Your task to perform on an android device: move an email to a new category in the gmail app Image 0: 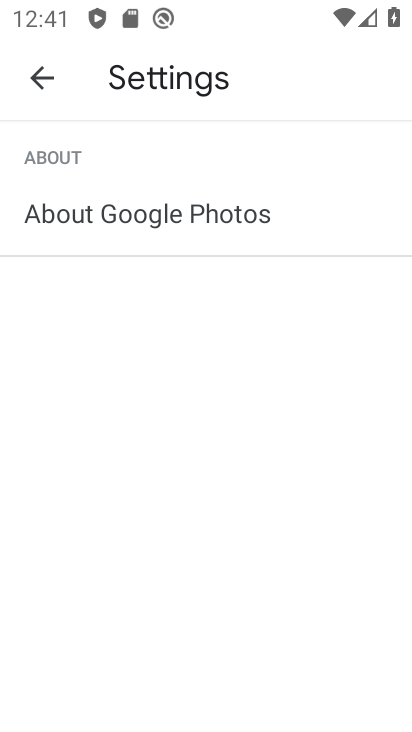
Step 0: press home button
Your task to perform on an android device: move an email to a new category in the gmail app Image 1: 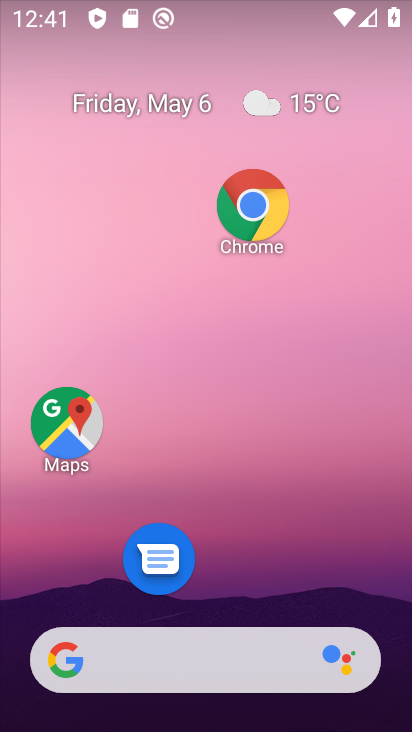
Step 1: drag from (237, 610) to (408, 443)
Your task to perform on an android device: move an email to a new category in the gmail app Image 2: 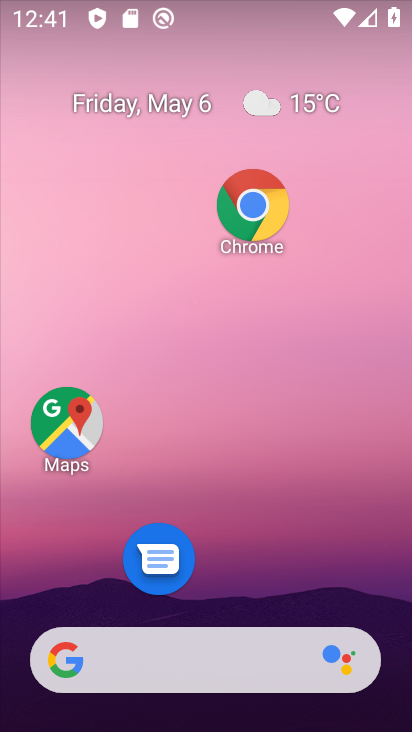
Step 2: click (361, 518)
Your task to perform on an android device: move an email to a new category in the gmail app Image 3: 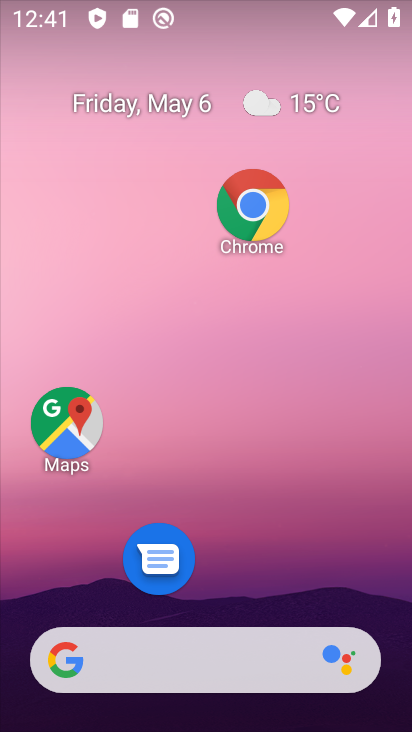
Step 3: drag from (232, 611) to (189, 183)
Your task to perform on an android device: move an email to a new category in the gmail app Image 4: 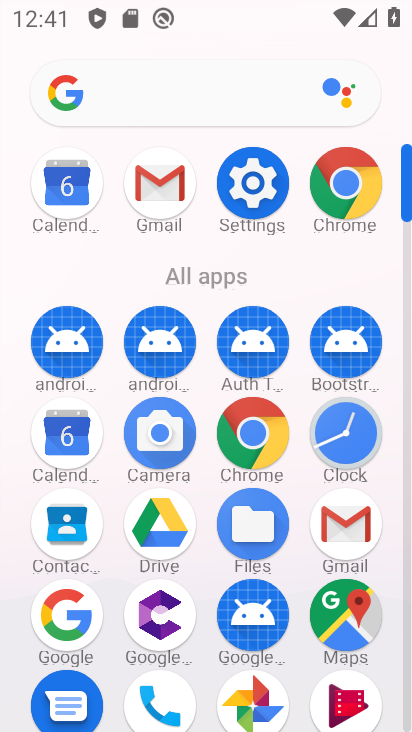
Step 4: click (373, 527)
Your task to perform on an android device: move an email to a new category in the gmail app Image 5: 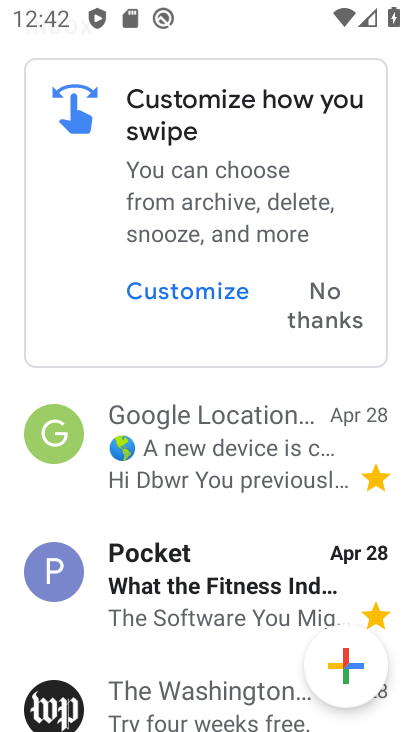
Step 5: click (249, 456)
Your task to perform on an android device: move an email to a new category in the gmail app Image 6: 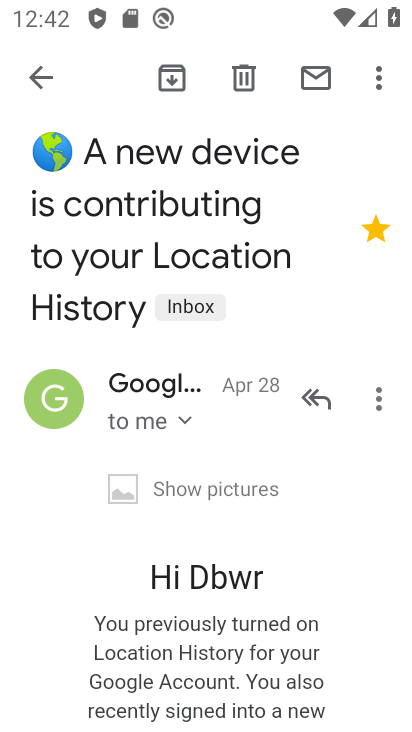
Step 6: click (363, 78)
Your task to perform on an android device: move an email to a new category in the gmail app Image 7: 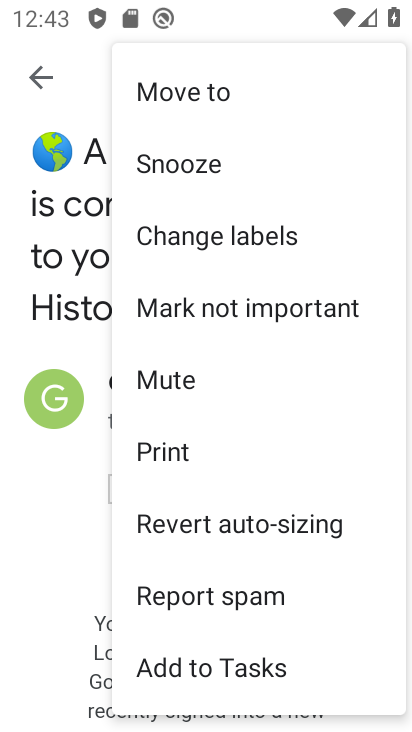
Step 7: click (240, 67)
Your task to perform on an android device: move an email to a new category in the gmail app Image 8: 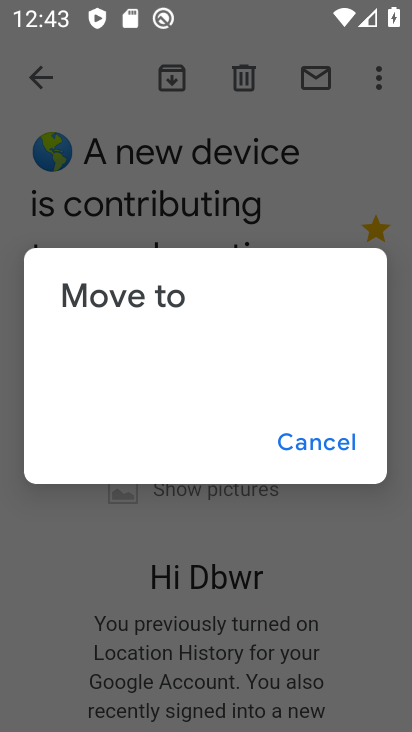
Step 8: press home button
Your task to perform on an android device: move an email to a new category in the gmail app Image 9: 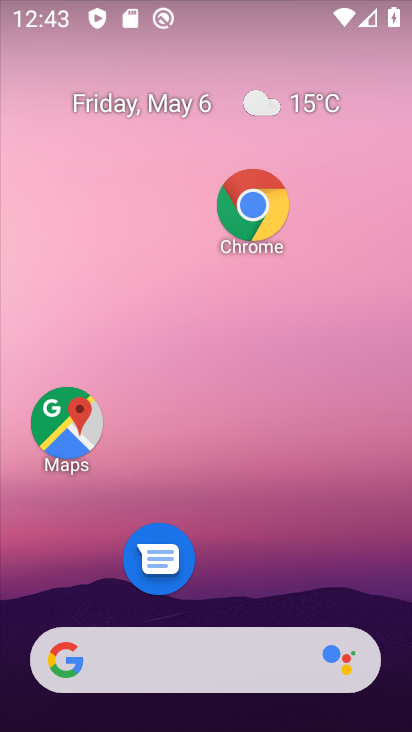
Step 9: drag from (206, 613) to (133, 199)
Your task to perform on an android device: move an email to a new category in the gmail app Image 10: 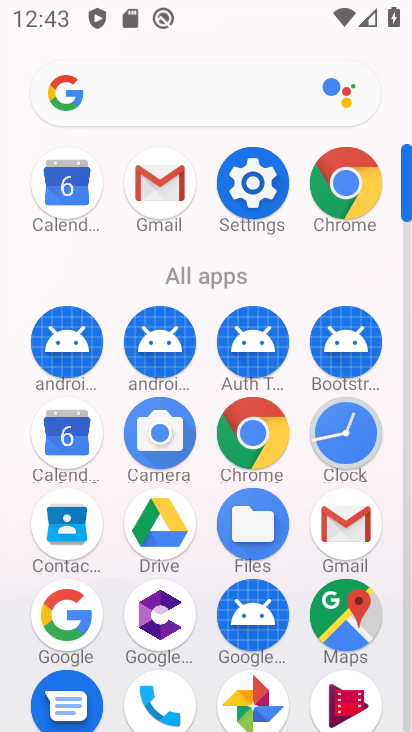
Step 10: click (338, 542)
Your task to perform on an android device: move an email to a new category in the gmail app Image 11: 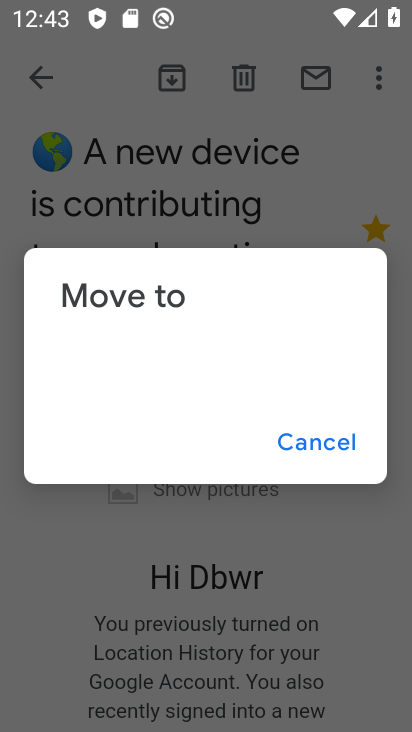
Step 11: click (317, 437)
Your task to perform on an android device: move an email to a new category in the gmail app Image 12: 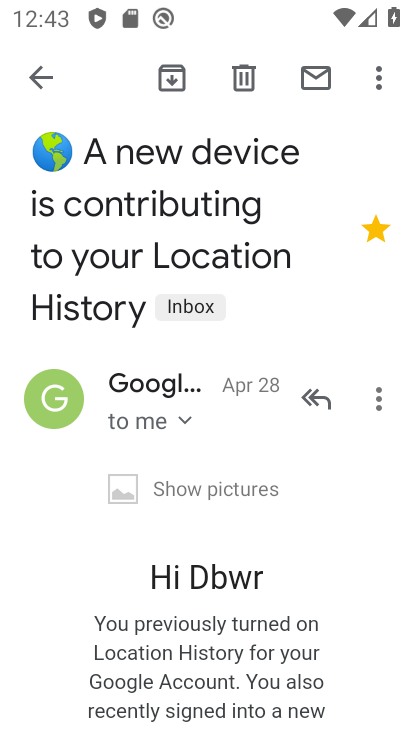
Step 12: click (34, 73)
Your task to perform on an android device: move an email to a new category in the gmail app Image 13: 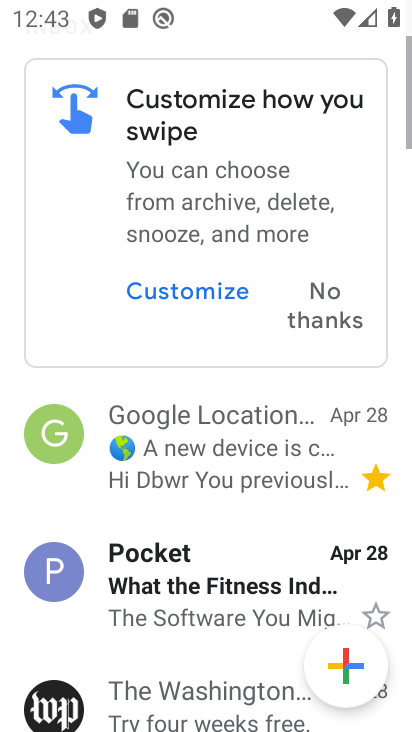
Step 13: click (327, 312)
Your task to perform on an android device: move an email to a new category in the gmail app Image 14: 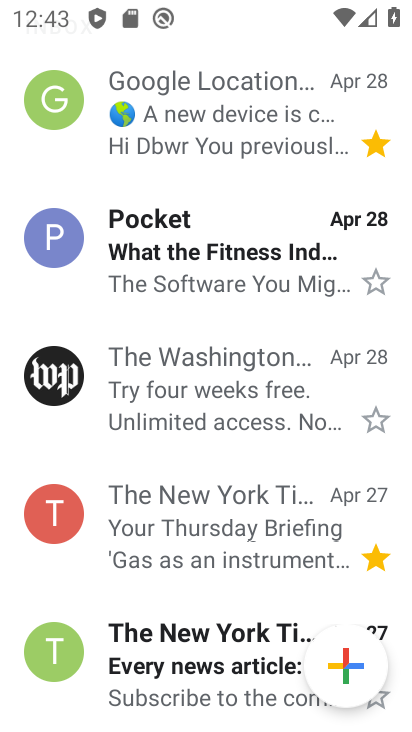
Step 14: click (197, 377)
Your task to perform on an android device: move an email to a new category in the gmail app Image 15: 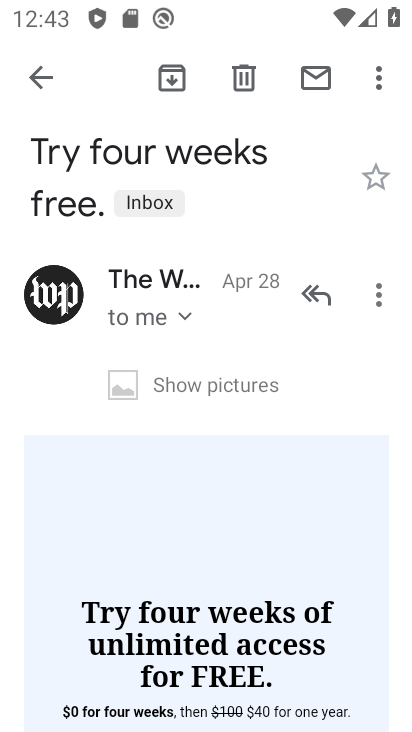
Step 15: click (379, 79)
Your task to perform on an android device: move an email to a new category in the gmail app Image 16: 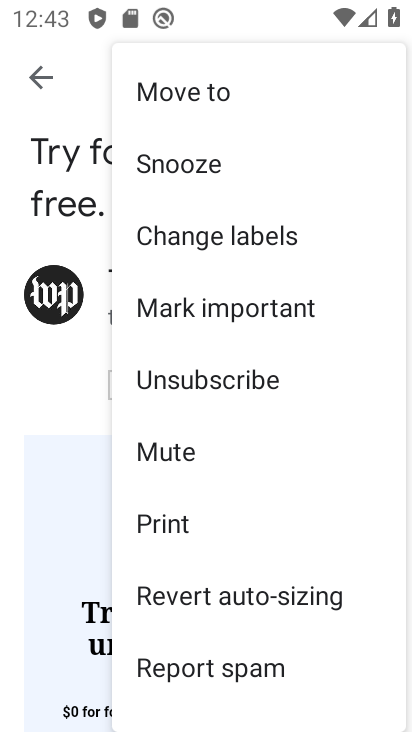
Step 16: click (186, 79)
Your task to perform on an android device: move an email to a new category in the gmail app Image 17: 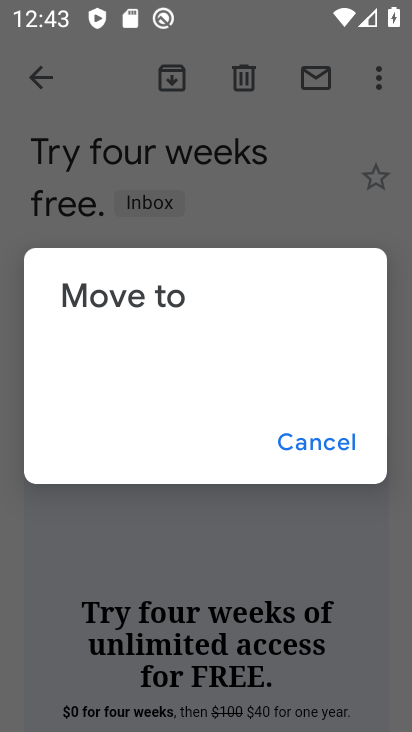
Step 17: click (329, 448)
Your task to perform on an android device: move an email to a new category in the gmail app Image 18: 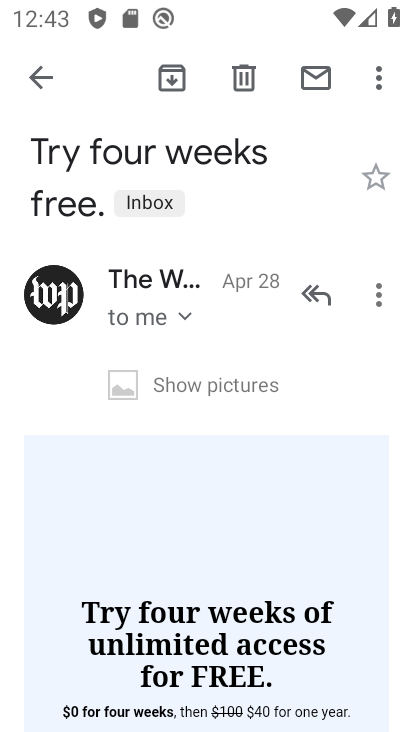
Step 18: task complete